Your task to perform on an android device: Open display settings Image 0: 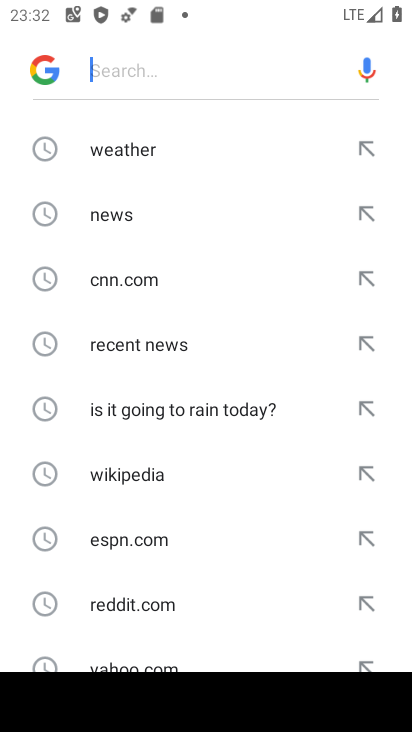
Step 0: press home button
Your task to perform on an android device: Open display settings Image 1: 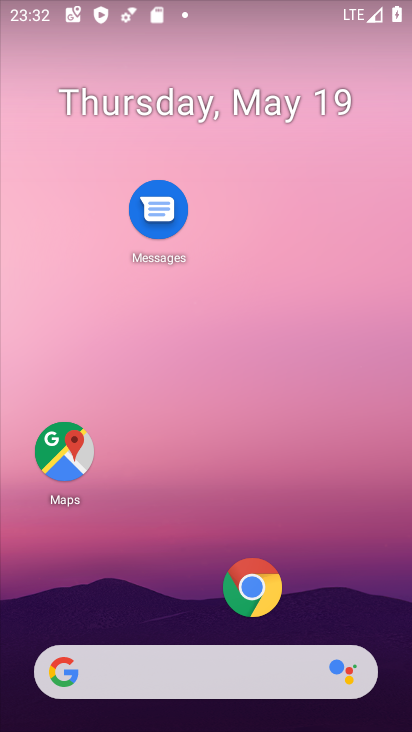
Step 1: drag from (163, 611) to (246, 189)
Your task to perform on an android device: Open display settings Image 2: 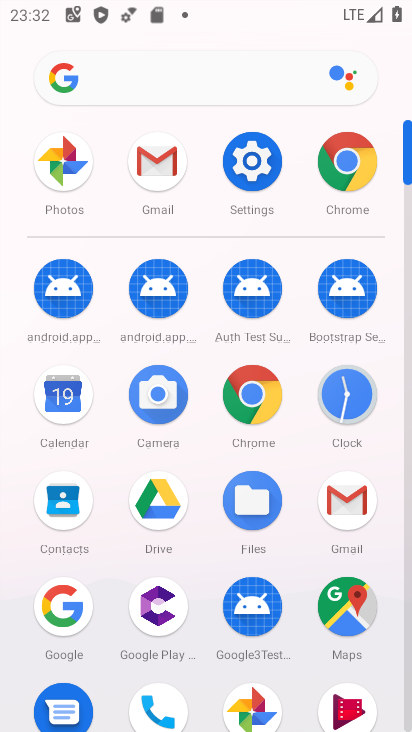
Step 2: click (246, 189)
Your task to perform on an android device: Open display settings Image 3: 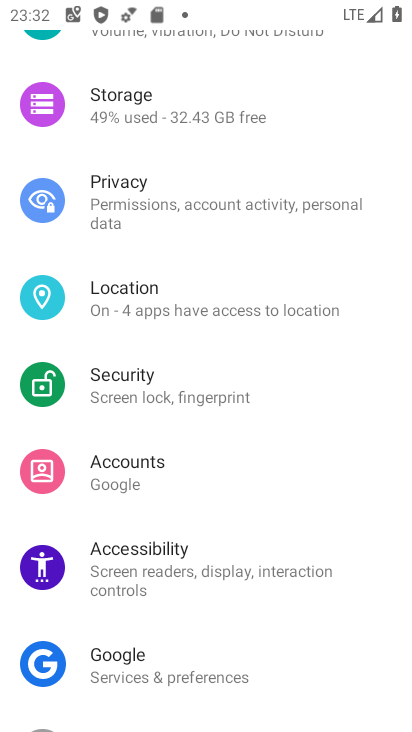
Step 3: drag from (246, 189) to (230, 672)
Your task to perform on an android device: Open display settings Image 4: 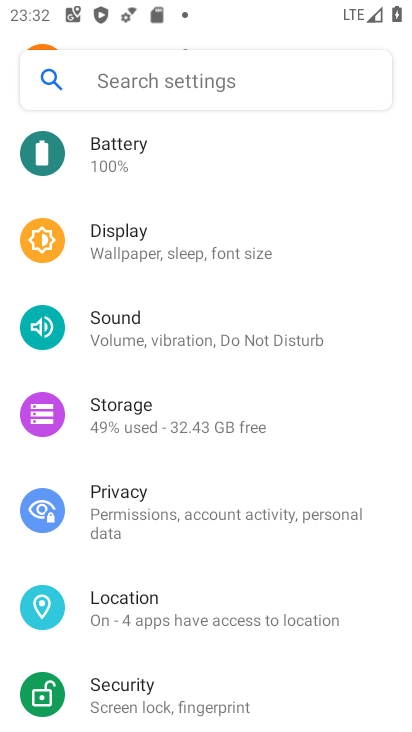
Step 4: click (161, 235)
Your task to perform on an android device: Open display settings Image 5: 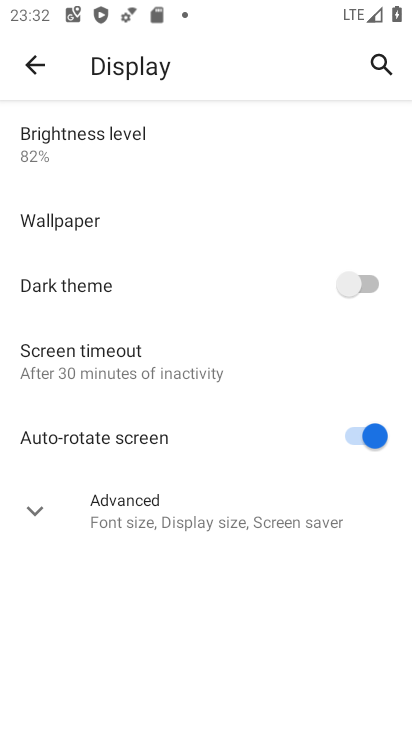
Step 5: task complete